Your task to perform on an android device: toggle sleep mode Image 0: 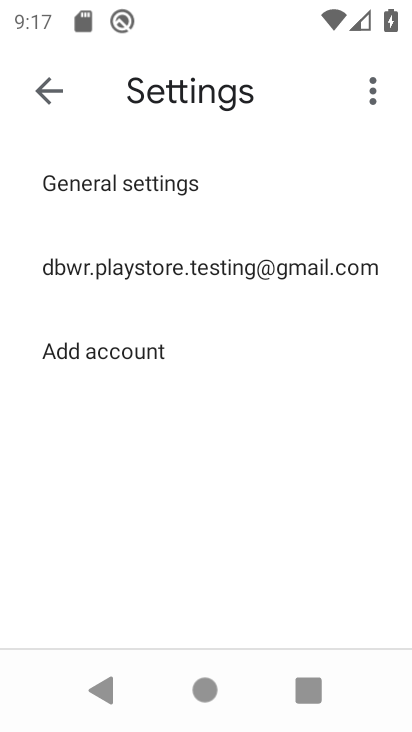
Step 0: press home button
Your task to perform on an android device: toggle sleep mode Image 1: 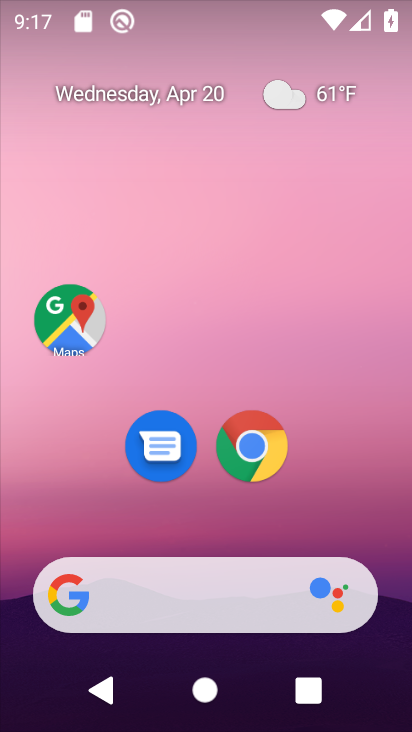
Step 1: drag from (349, 410) to (345, 142)
Your task to perform on an android device: toggle sleep mode Image 2: 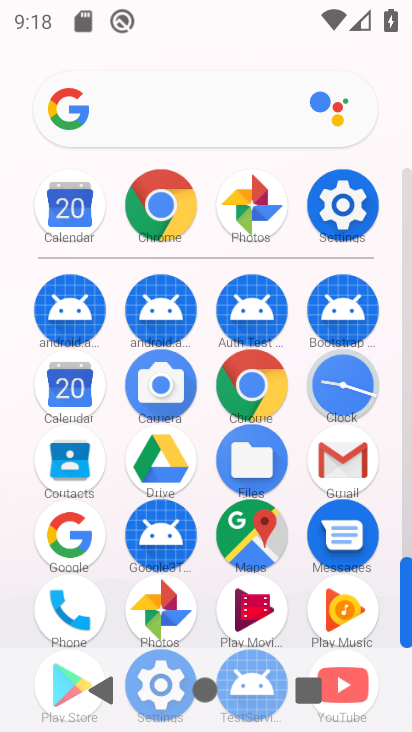
Step 2: click (339, 209)
Your task to perform on an android device: toggle sleep mode Image 3: 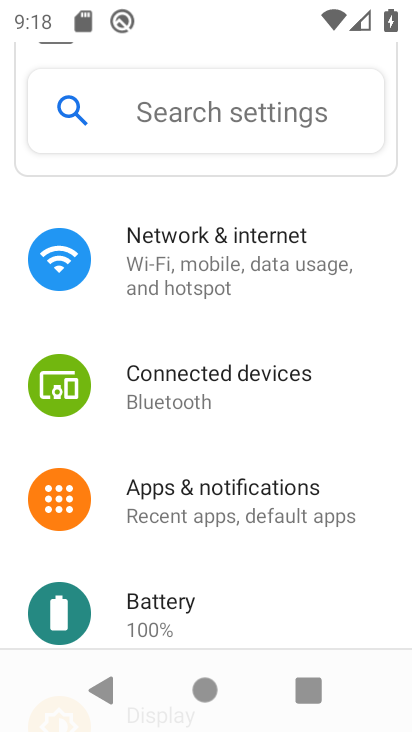
Step 3: drag from (321, 592) to (316, 301)
Your task to perform on an android device: toggle sleep mode Image 4: 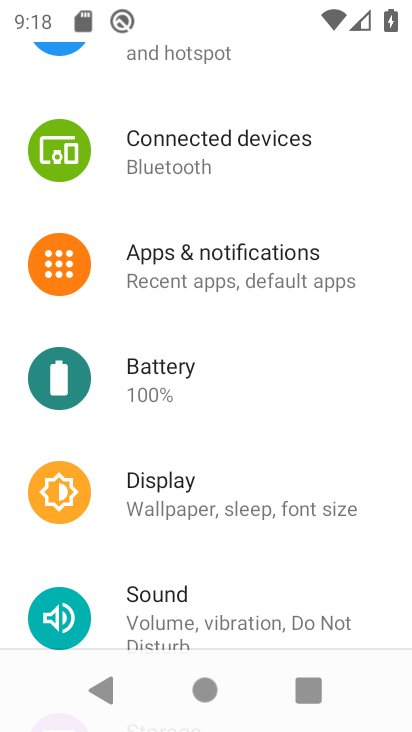
Step 4: drag from (293, 209) to (296, 440)
Your task to perform on an android device: toggle sleep mode Image 5: 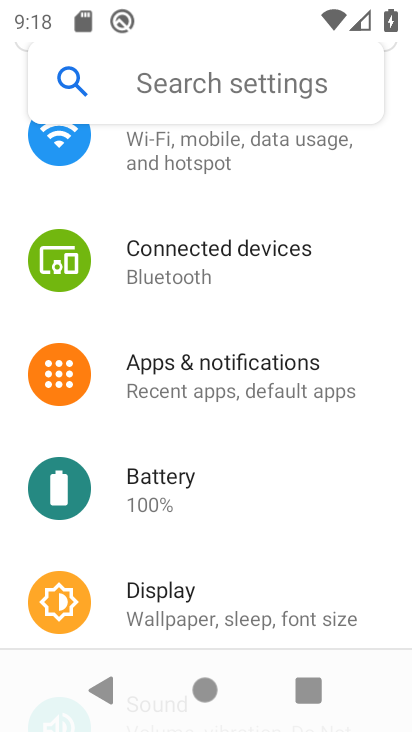
Step 5: click (275, 101)
Your task to perform on an android device: toggle sleep mode Image 6: 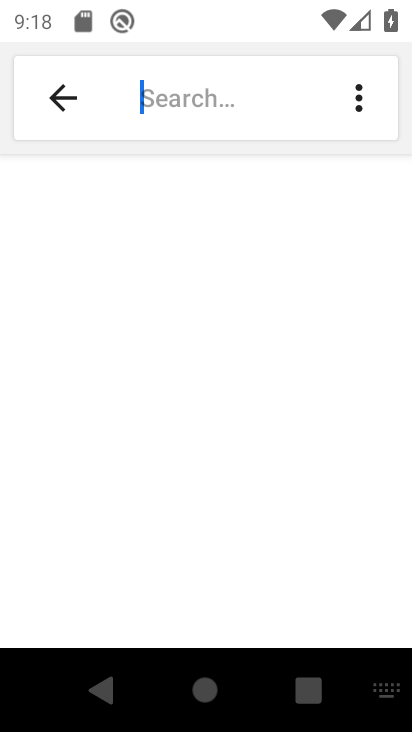
Step 6: type "sleep mode"
Your task to perform on an android device: toggle sleep mode Image 7: 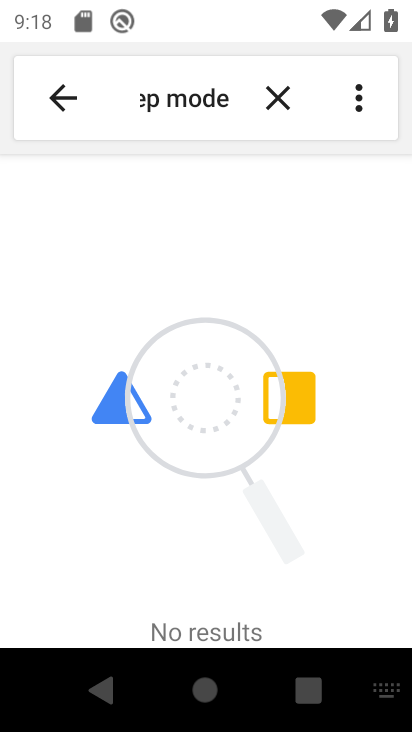
Step 7: task complete